Your task to perform on an android device: change text size in settings app Image 0: 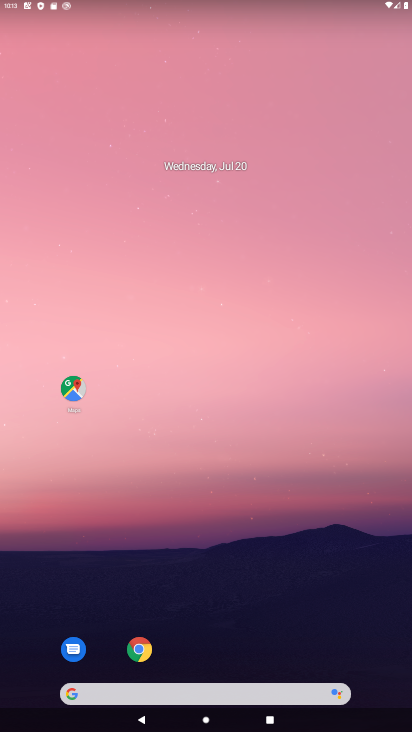
Step 0: drag from (321, 656) to (271, 40)
Your task to perform on an android device: change text size in settings app Image 1: 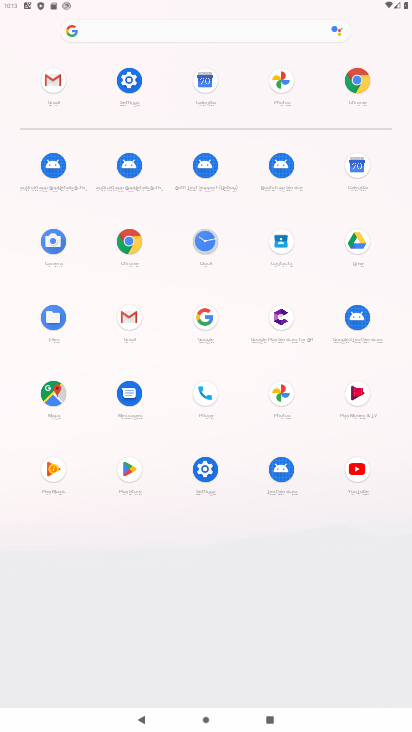
Step 1: click (135, 90)
Your task to perform on an android device: change text size in settings app Image 2: 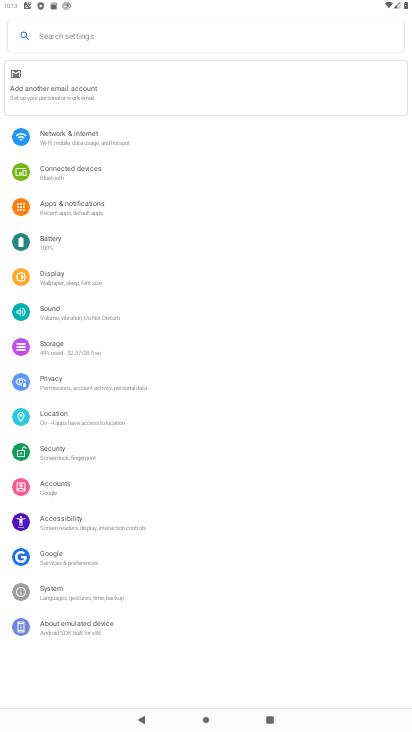
Step 2: task complete